Your task to perform on an android device: turn on sleep mode Image 0: 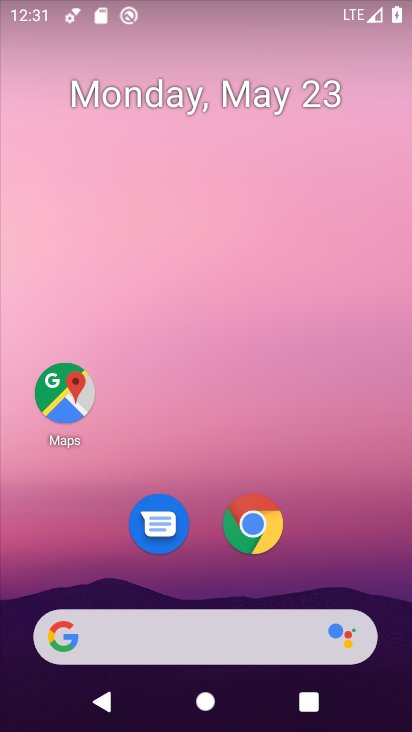
Step 0: drag from (337, 495) to (320, 0)
Your task to perform on an android device: turn on sleep mode Image 1: 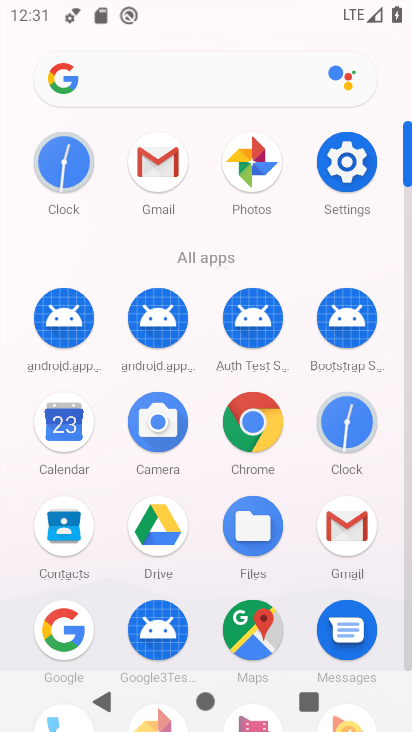
Step 1: click (338, 166)
Your task to perform on an android device: turn on sleep mode Image 2: 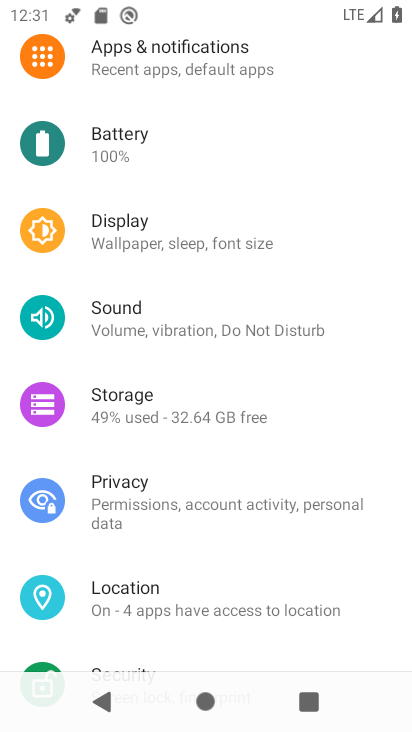
Step 2: click (214, 231)
Your task to perform on an android device: turn on sleep mode Image 3: 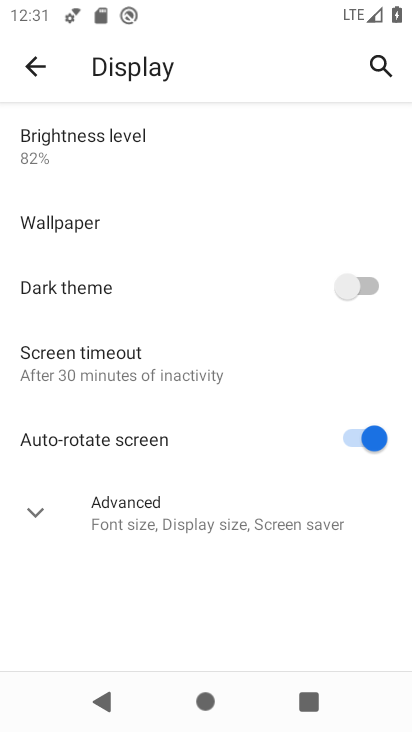
Step 3: click (41, 515)
Your task to perform on an android device: turn on sleep mode Image 4: 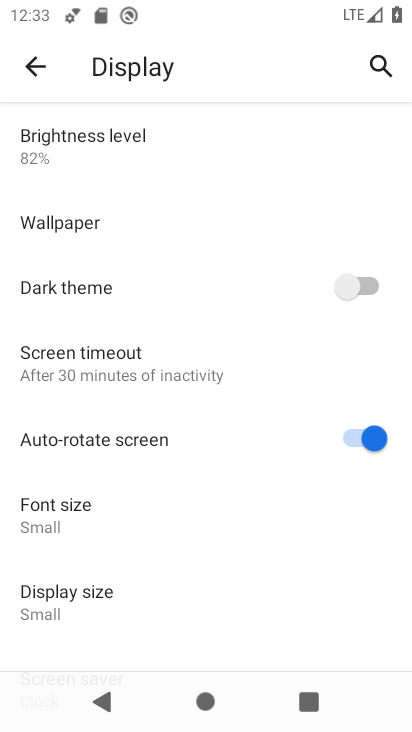
Step 4: task complete